Your task to perform on an android device: Open settings Image 0: 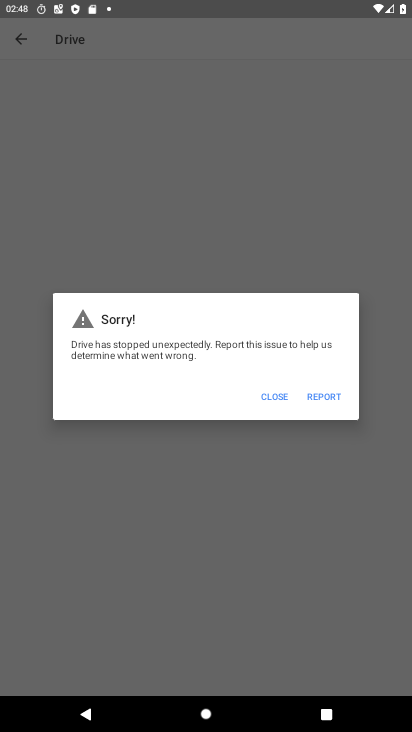
Step 0: press home button
Your task to perform on an android device: Open settings Image 1: 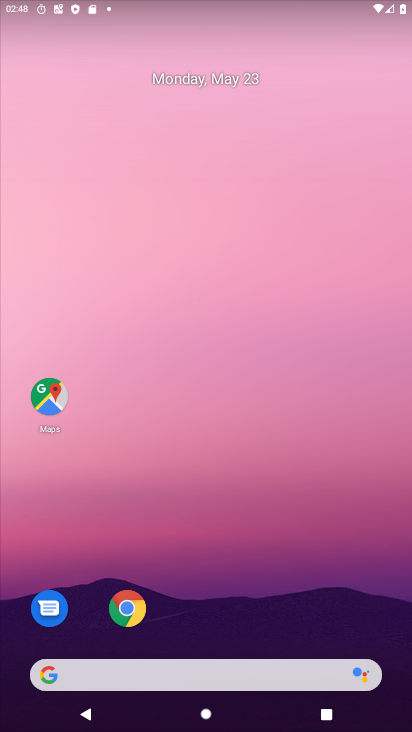
Step 1: drag from (204, 480) to (236, 10)
Your task to perform on an android device: Open settings Image 2: 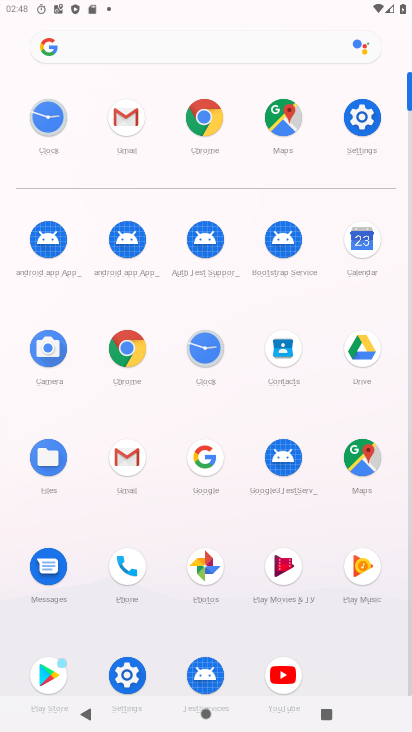
Step 2: click (364, 119)
Your task to perform on an android device: Open settings Image 3: 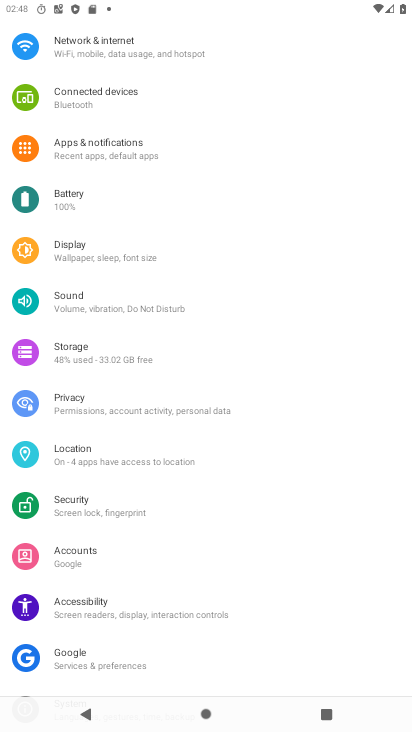
Step 3: task complete